Your task to perform on an android device: Empty the shopping cart on walmart.com. Add "corsair k70" to the cart on walmart.com, then select checkout. Image 0: 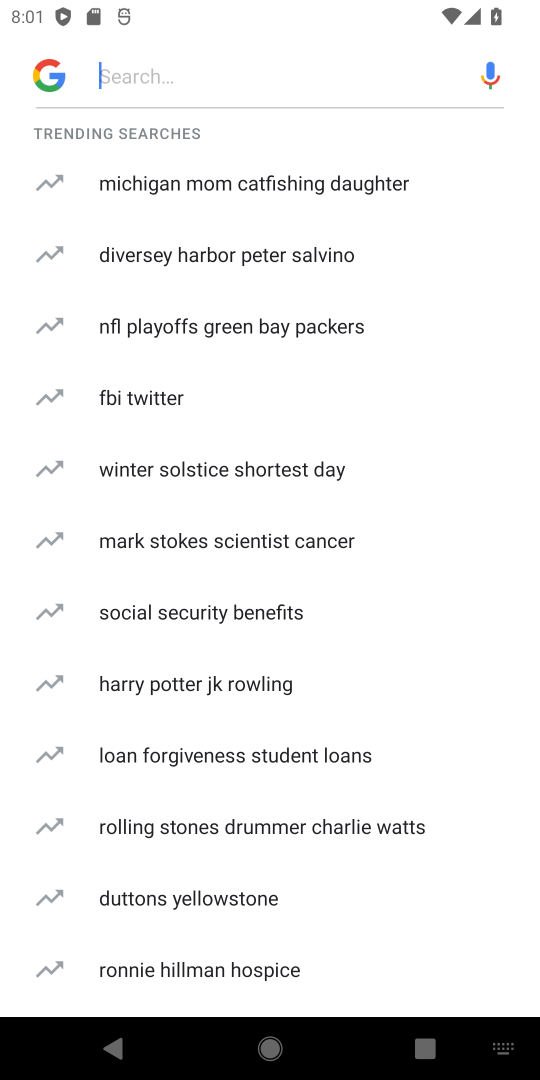
Step 0: type "walmart.com"
Your task to perform on an android device: Empty the shopping cart on walmart.com. Add "corsair k70" to the cart on walmart.com, then select checkout. Image 1: 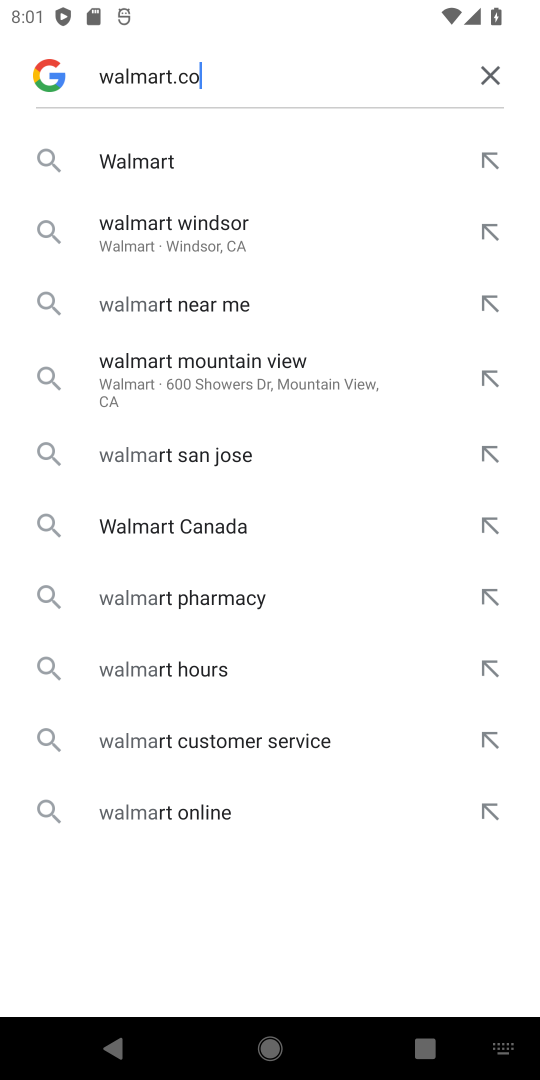
Step 1: type ""
Your task to perform on an android device: Empty the shopping cart on walmart.com. Add "corsair k70" to the cart on walmart.com, then select checkout. Image 2: 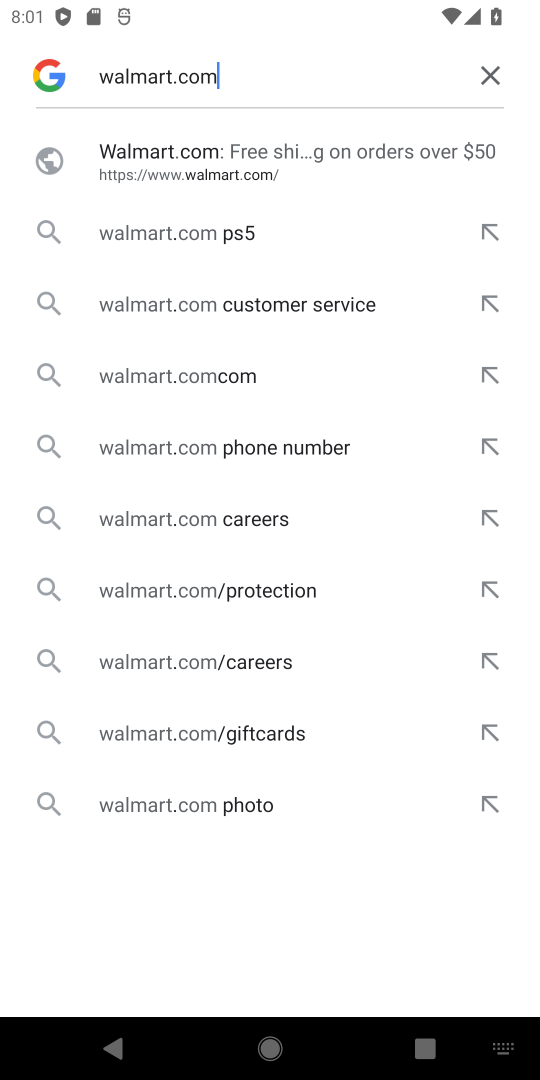
Step 2: click (172, 174)
Your task to perform on an android device: Empty the shopping cart on walmart.com. Add "corsair k70" to the cart on walmart.com, then select checkout. Image 3: 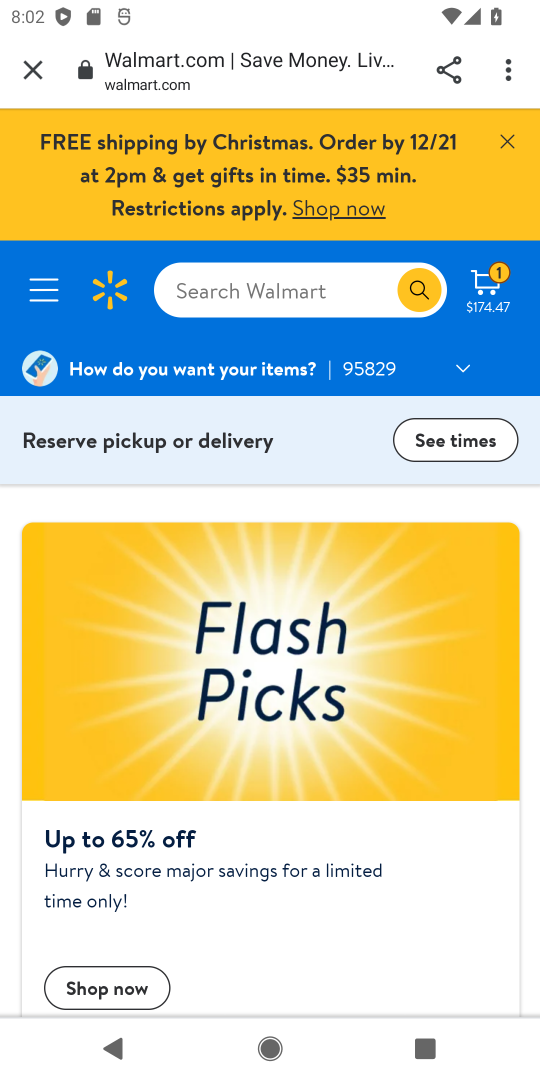
Step 3: click (205, 298)
Your task to perform on an android device: Empty the shopping cart on walmart.com. Add "corsair k70" to the cart on walmart.com, then select checkout. Image 4: 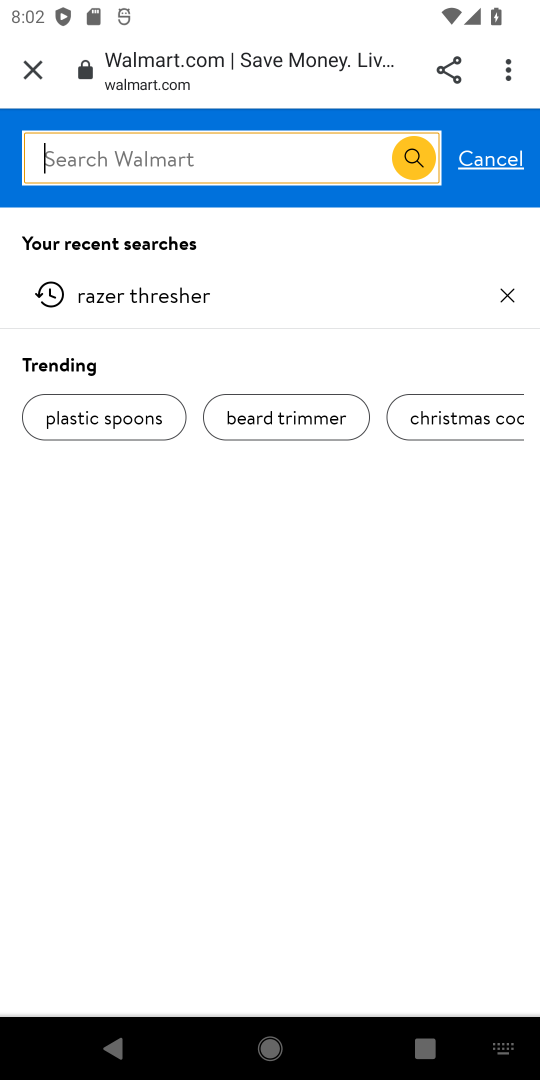
Step 4: type ""corsair k70""
Your task to perform on an android device: Empty the shopping cart on walmart.com. Add "corsair k70" to the cart on walmart.com, then select checkout. Image 5: 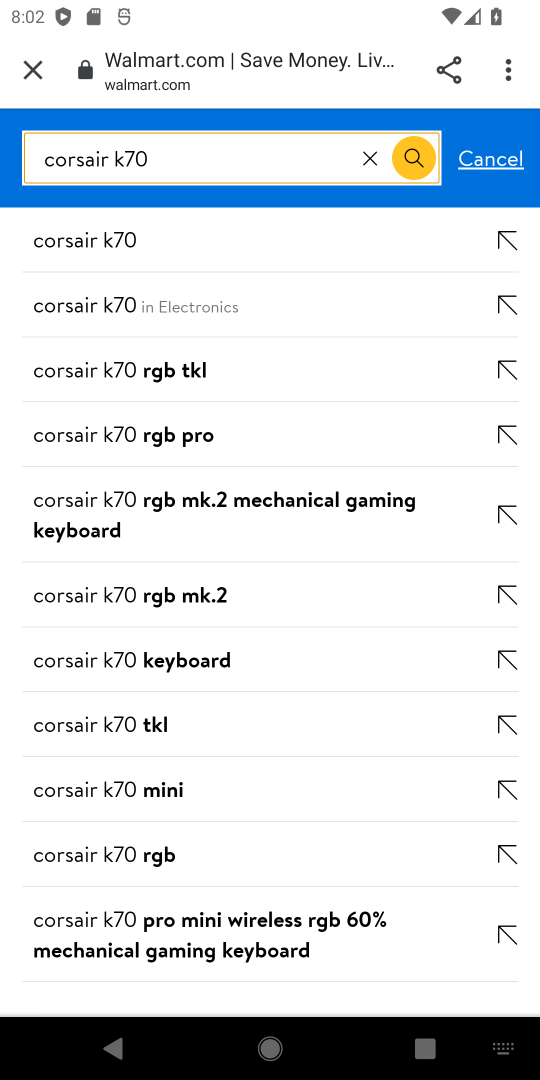
Step 5: click (412, 174)
Your task to perform on an android device: Empty the shopping cart on walmart.com. Add "corsair k70" to the cart on walmart.com, then select checkout. Image 6: 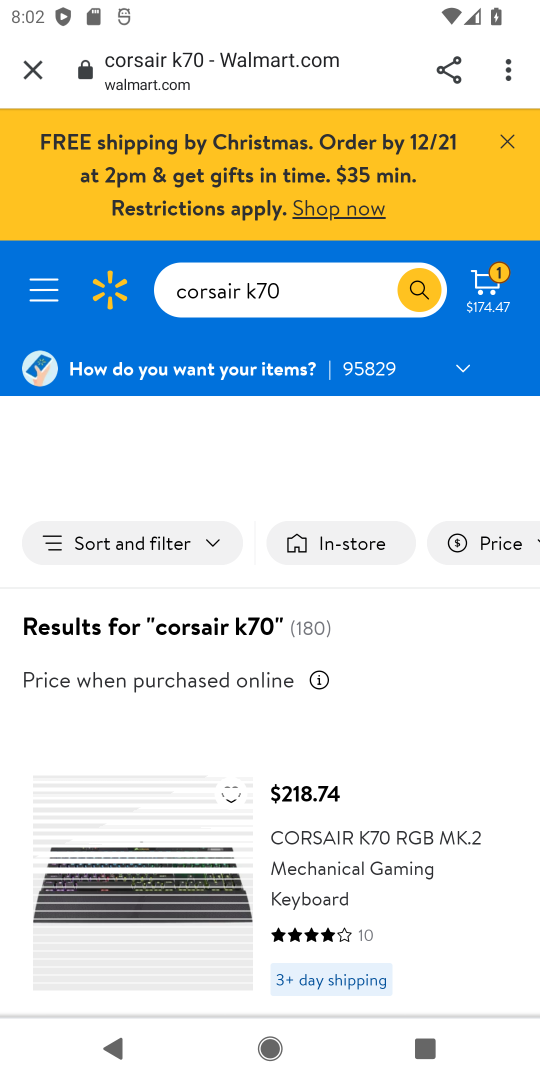
Step 6: drag from (374, 883) to (294, 391)
Your task to perform on an android device: Empty the shopping cart on walmart.com. Add "corsair k70" to the cart on walmart.com, then select checkout. Image 7: 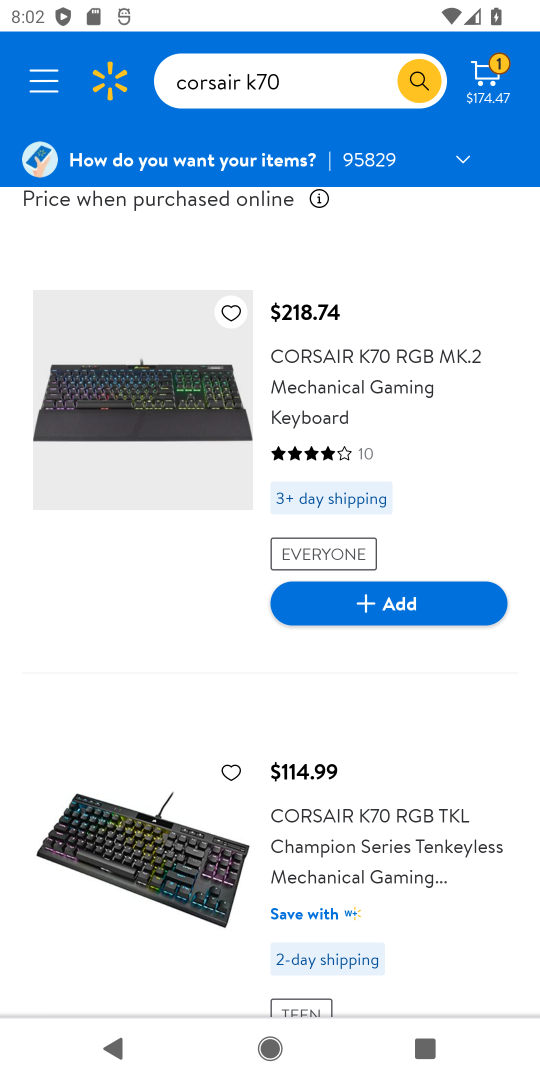
Step 7: click (362, 621)
Your task to perform on an android device: Empty the shopping cart on walmart.com. Add "corsair k70" to the cart on walmart.com, then select checkout. Image 8: 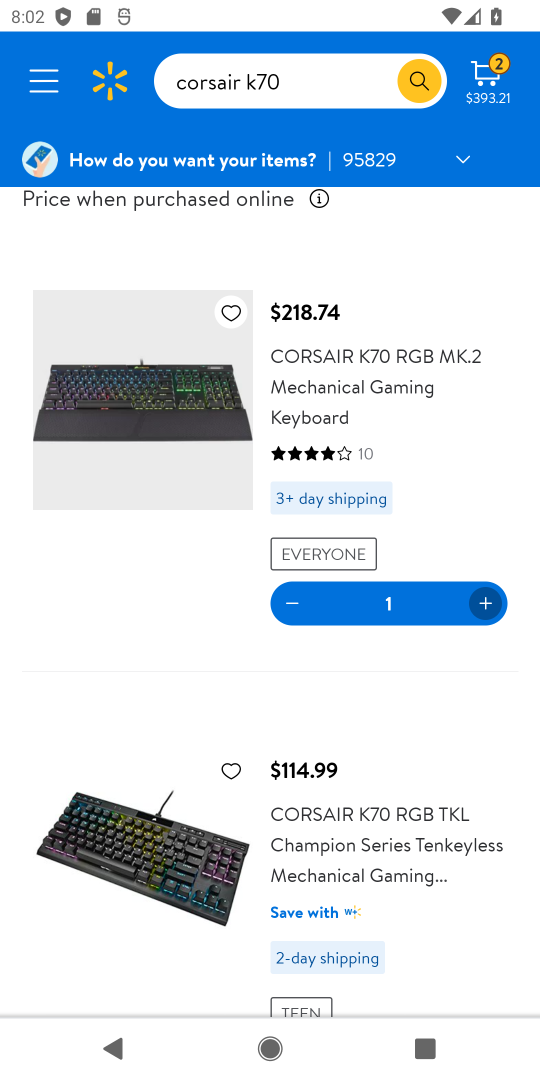
Step 8: drag from (450, 668) to (539, 1073)
Your task to perform on an android device: Empty the shopping cart on walmart.com. Add "corsair k70" to the cart on walmart.com, then select checkout. Image 9: 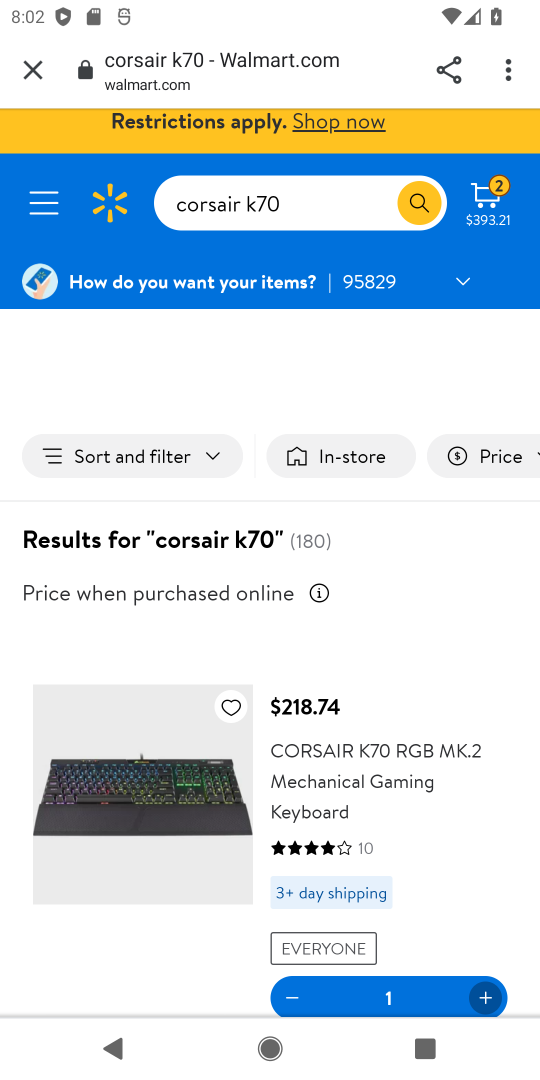
Step 9: click (491, 197)
Your task to perform on an android device: Empty the shopping cart on walmart.com. Add "corsair k70" to the cart on walmart.com, then select checkout. Image 10: 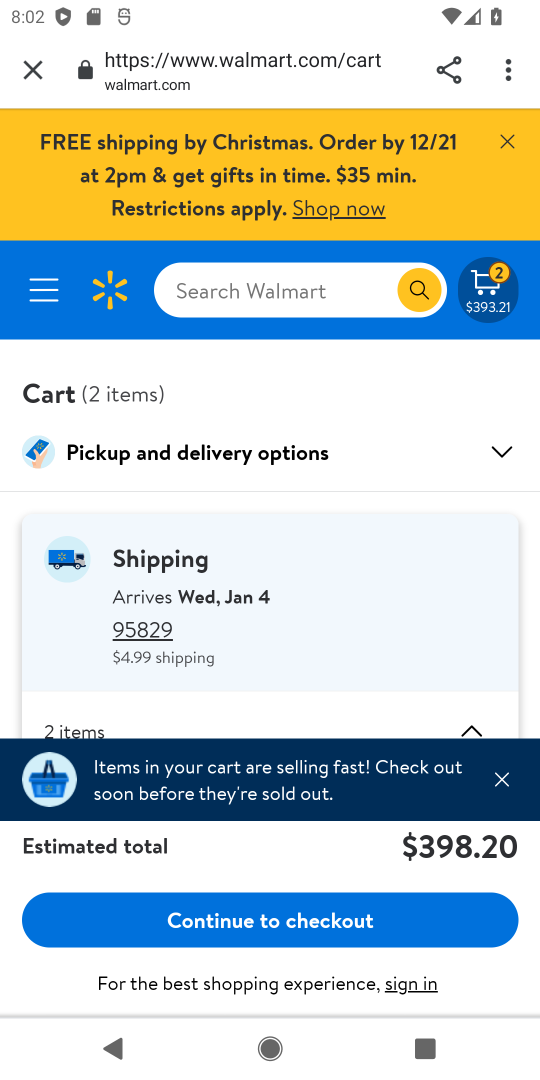
Step 10: click (280, 932)
Your task to perform on an android device: Empty the shopping cart on walmart.com. Add "corsair k70" to the cart on walmart.com, then select checkout. Image 11: 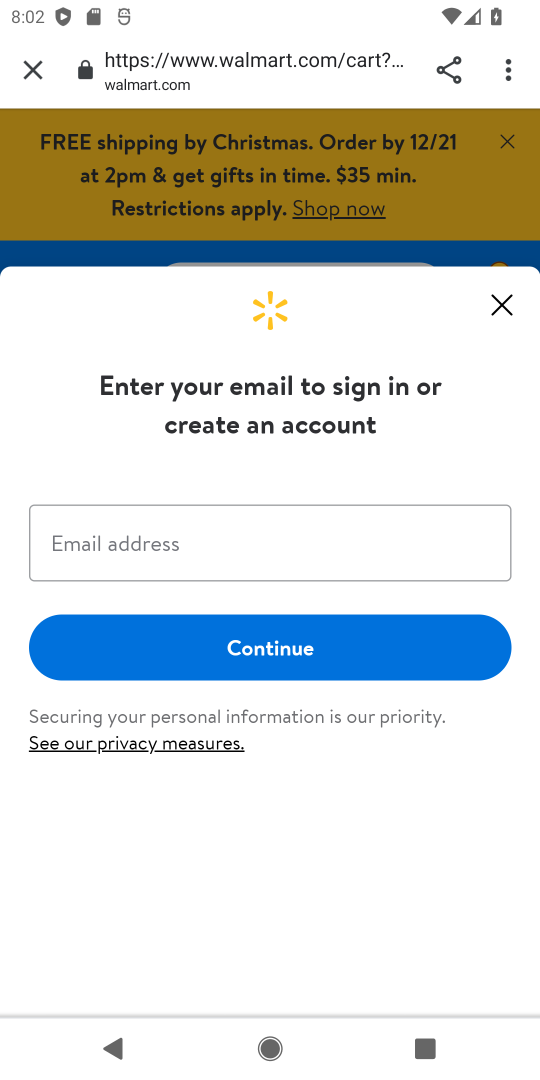
Step 11: task complete